Your task to perform on an android device: What's the weather going to be tomorrow? Image 0: 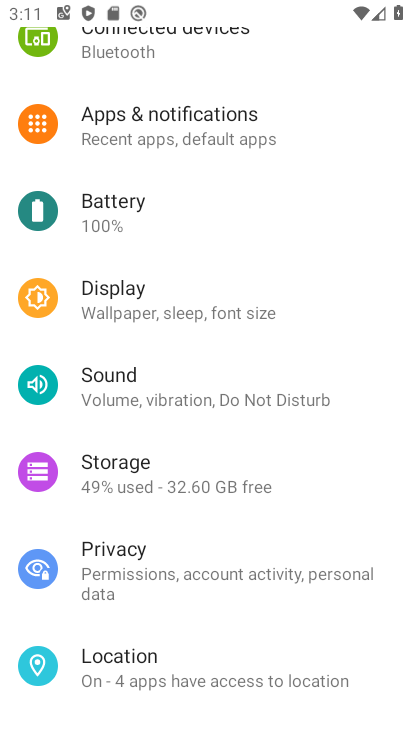
Step 0: press home button
Your task to perform on an android device: What's the weather going to be tomorrow? Image 1: 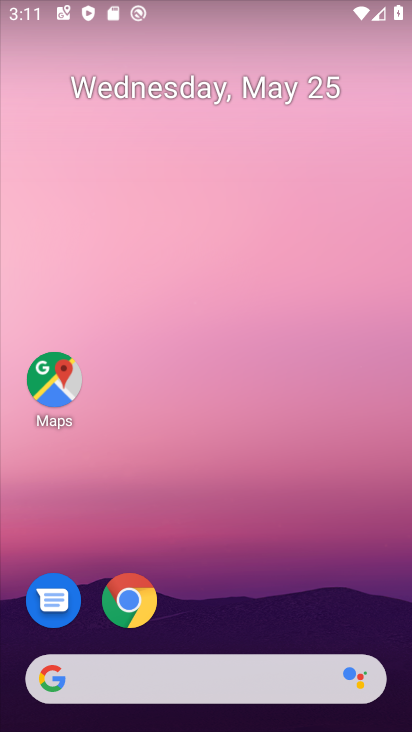
Step 1: drag from (0, 703) to (265, 116)
Your task to perform on an android device: What's the weather going to be tomorrow? Image 2: 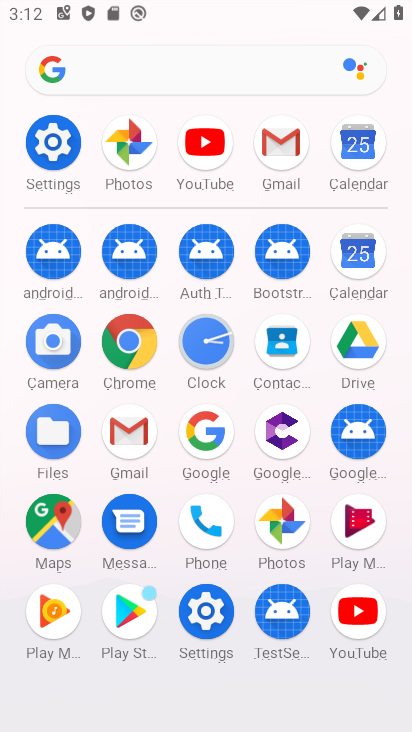
Step 2: press home button
Your task to perform on an android device: What's the weather going to be tomorrow? Image 3: 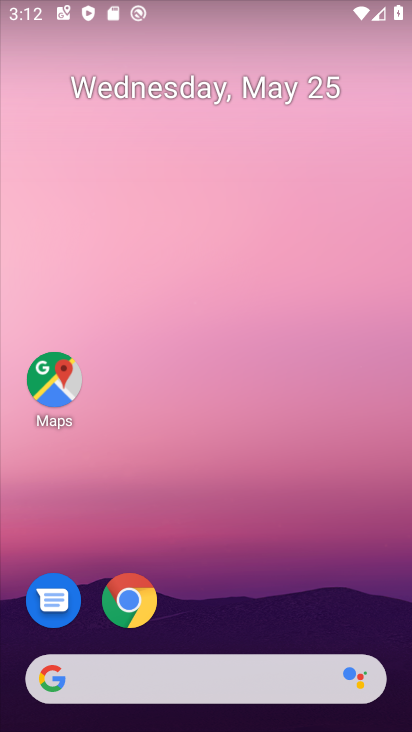
Step 3: click (213, 673)
Your task to perform on an android device: What's the weather going to be tomorrow? Image 4: 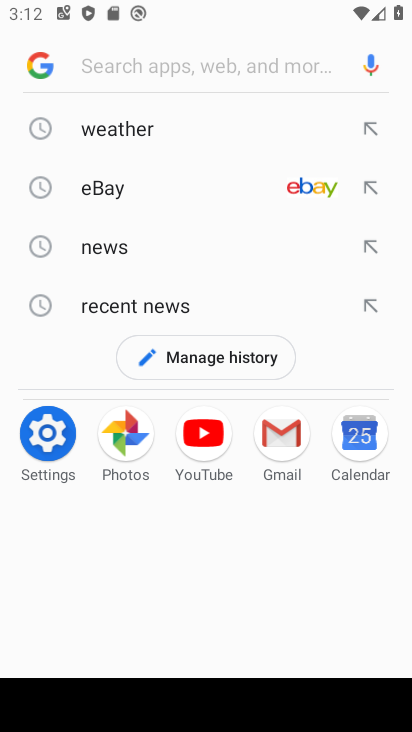
Step 4: click (89, 130)
Your task to perform on an android device: What's the weather going to be tomorrow? Image 5: 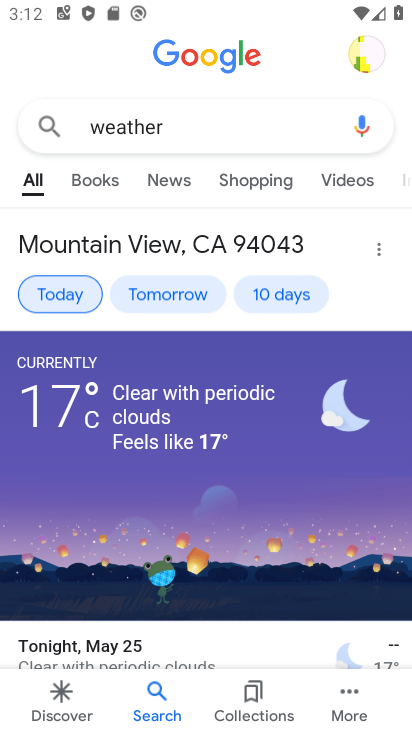
Step 5: task complete